Your task to perform on an android device: turn off location Image 0: 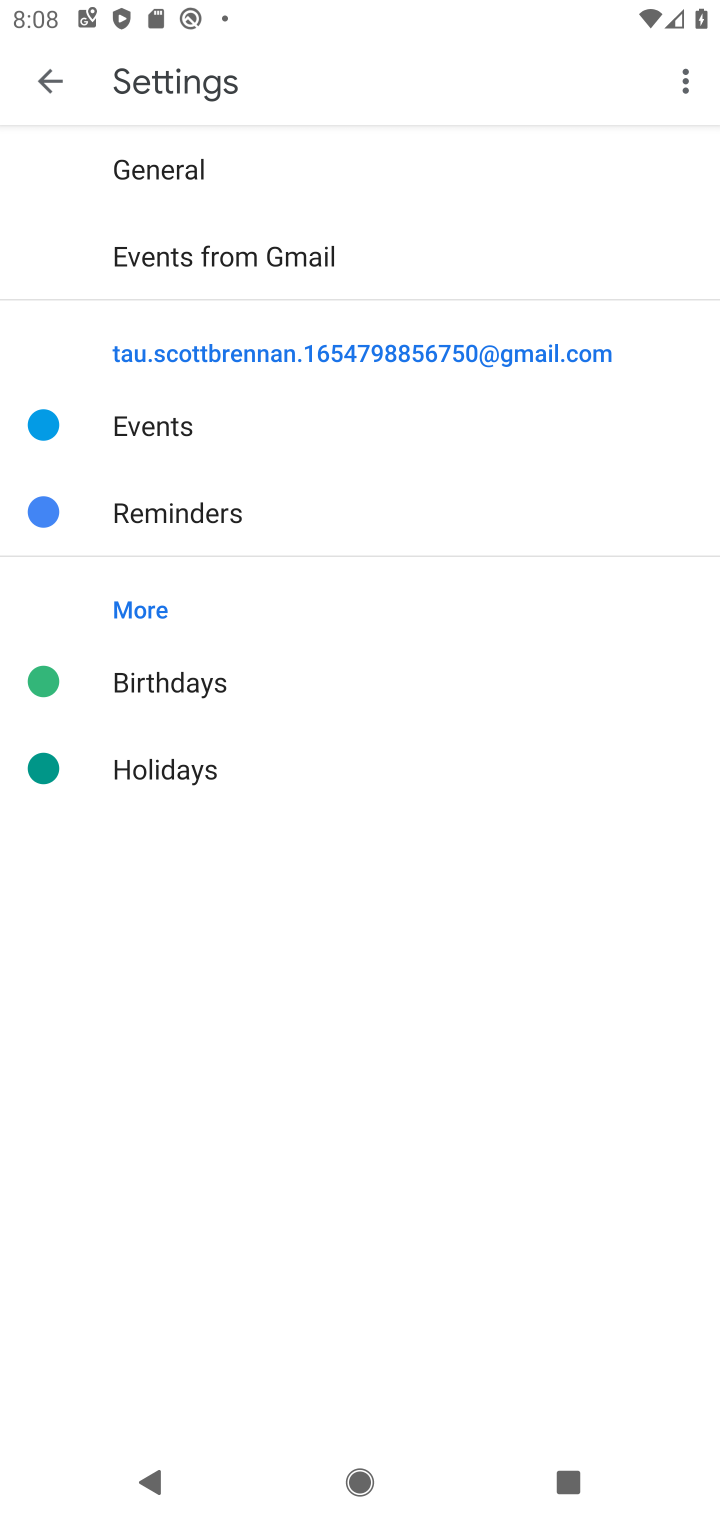
Step 0: press home button
Your task to perform on an android device: turn off location Image 1: 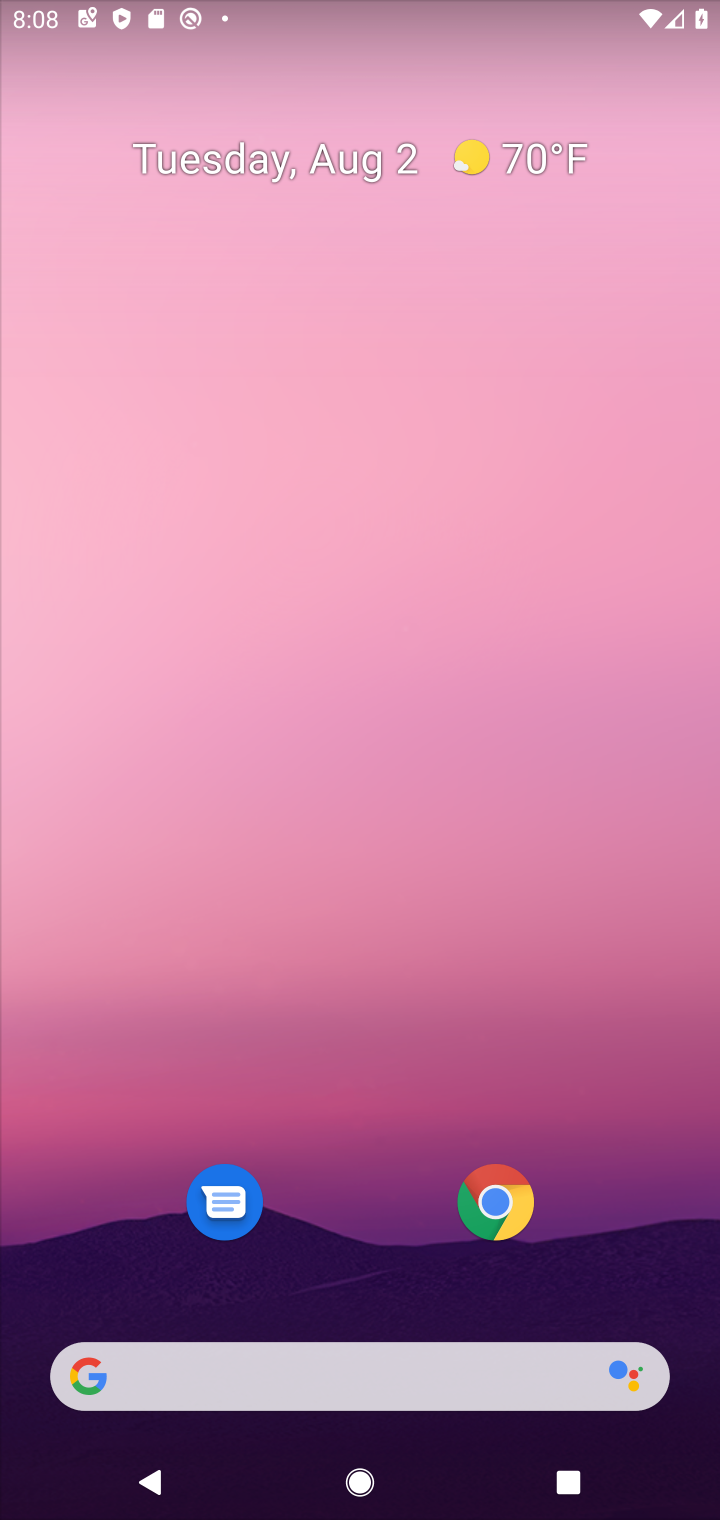
Step 1: drag from (376, 1064) to (358, 52)
Your task to perform on an android device: turn off location Image 2: 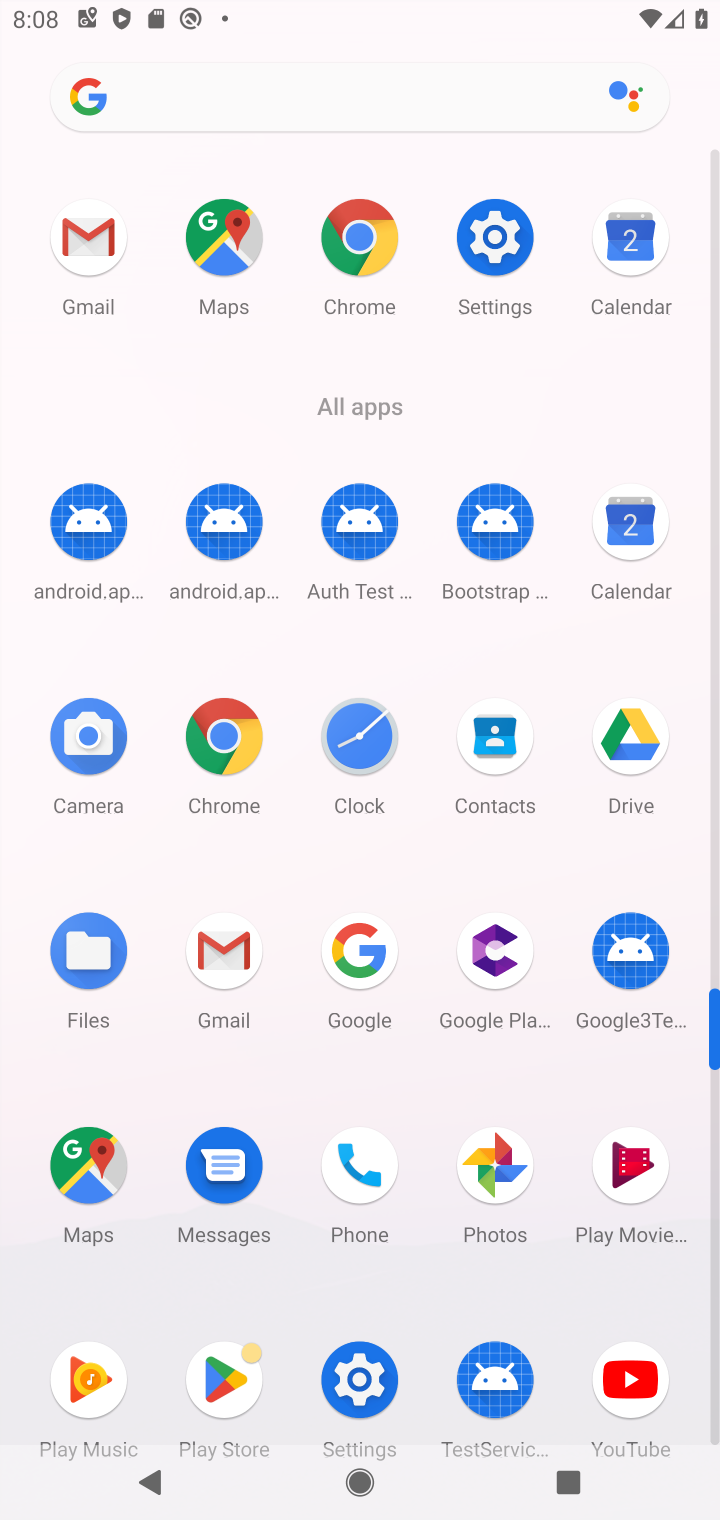
Step 2: click (488, 239)
Your task to perform on an android device: turn off location Image 3: 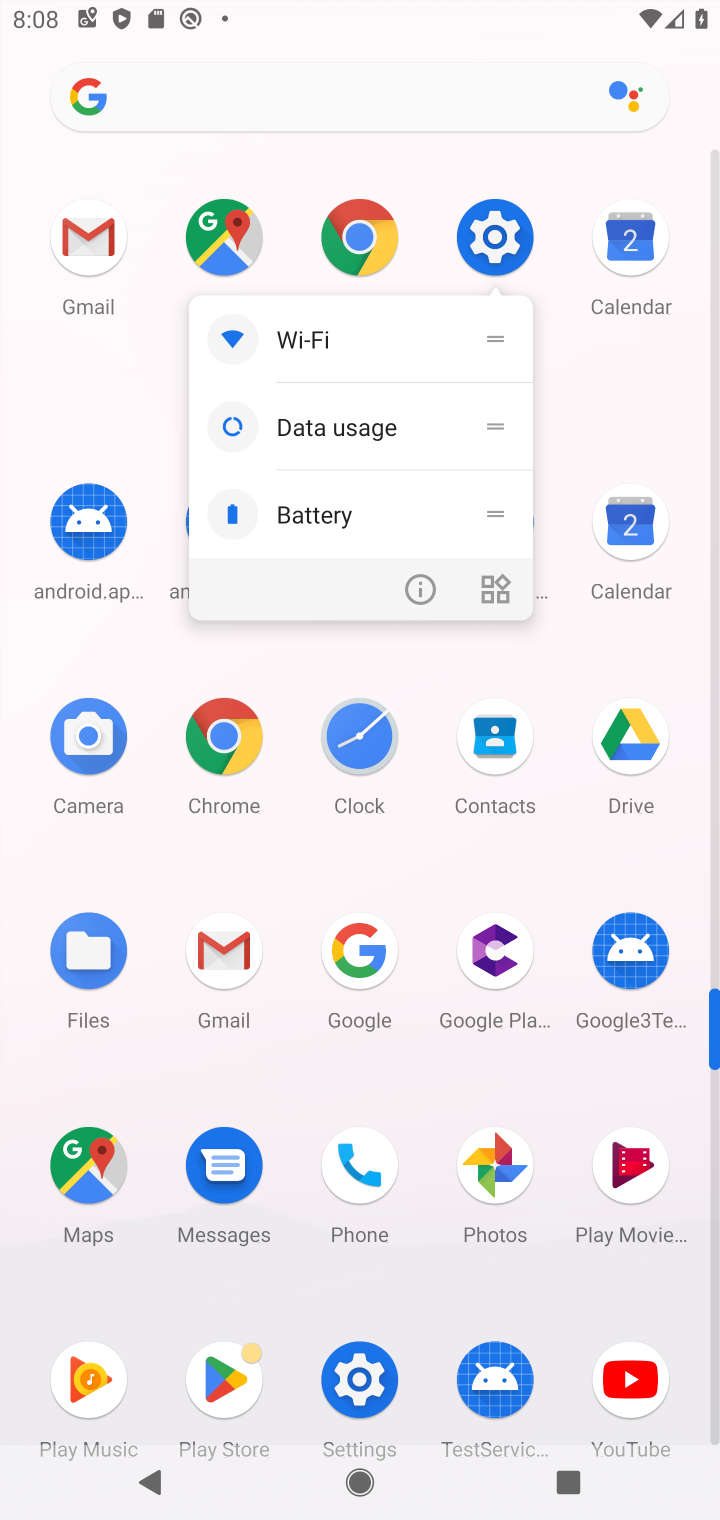
Step 3: click (488, 239)
Your task to perform on an android device: turn off location Image 4: 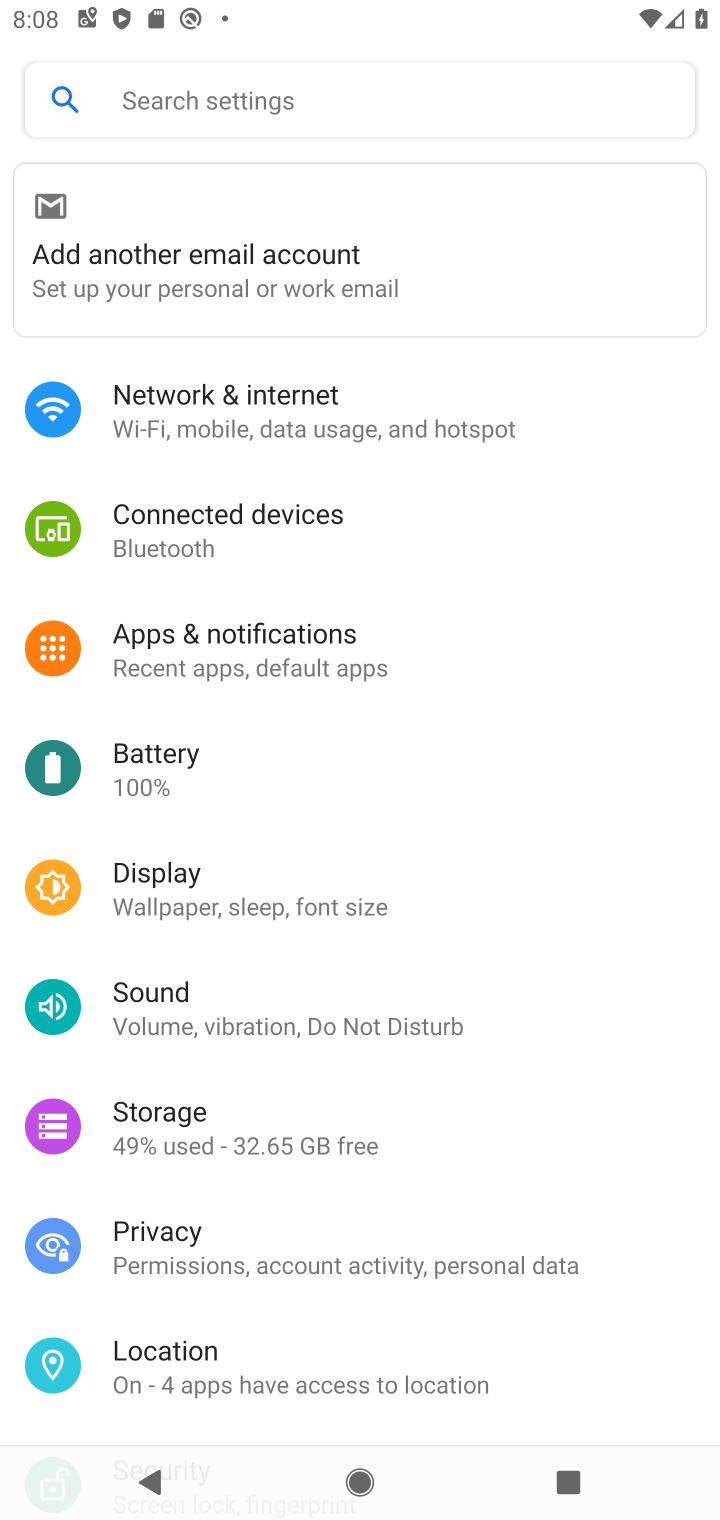
Step 4: click (202, 1369)
Your task to perform on an android device: turn off location Image 5: 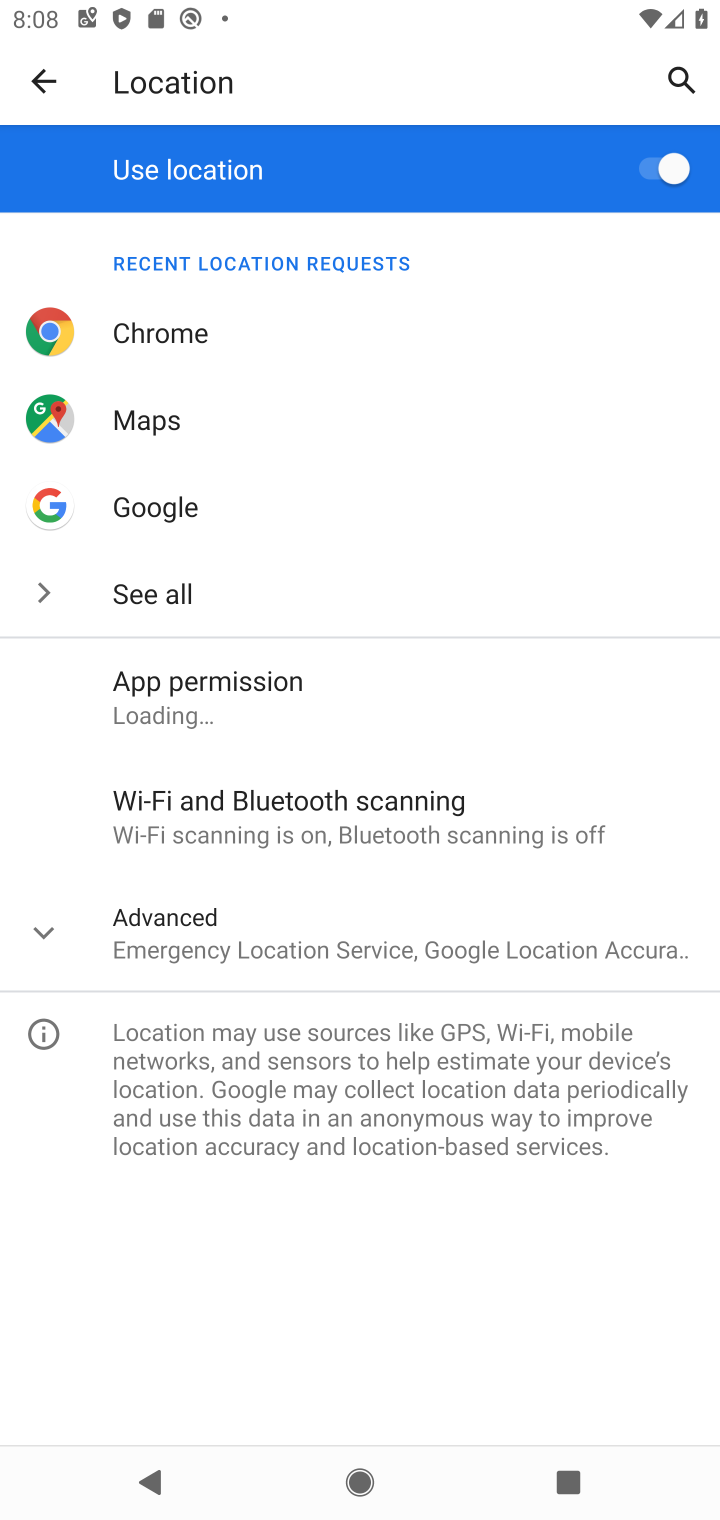
Step 5: click (661, 165)
Your task to perform on an android device: turn off location Image 6: 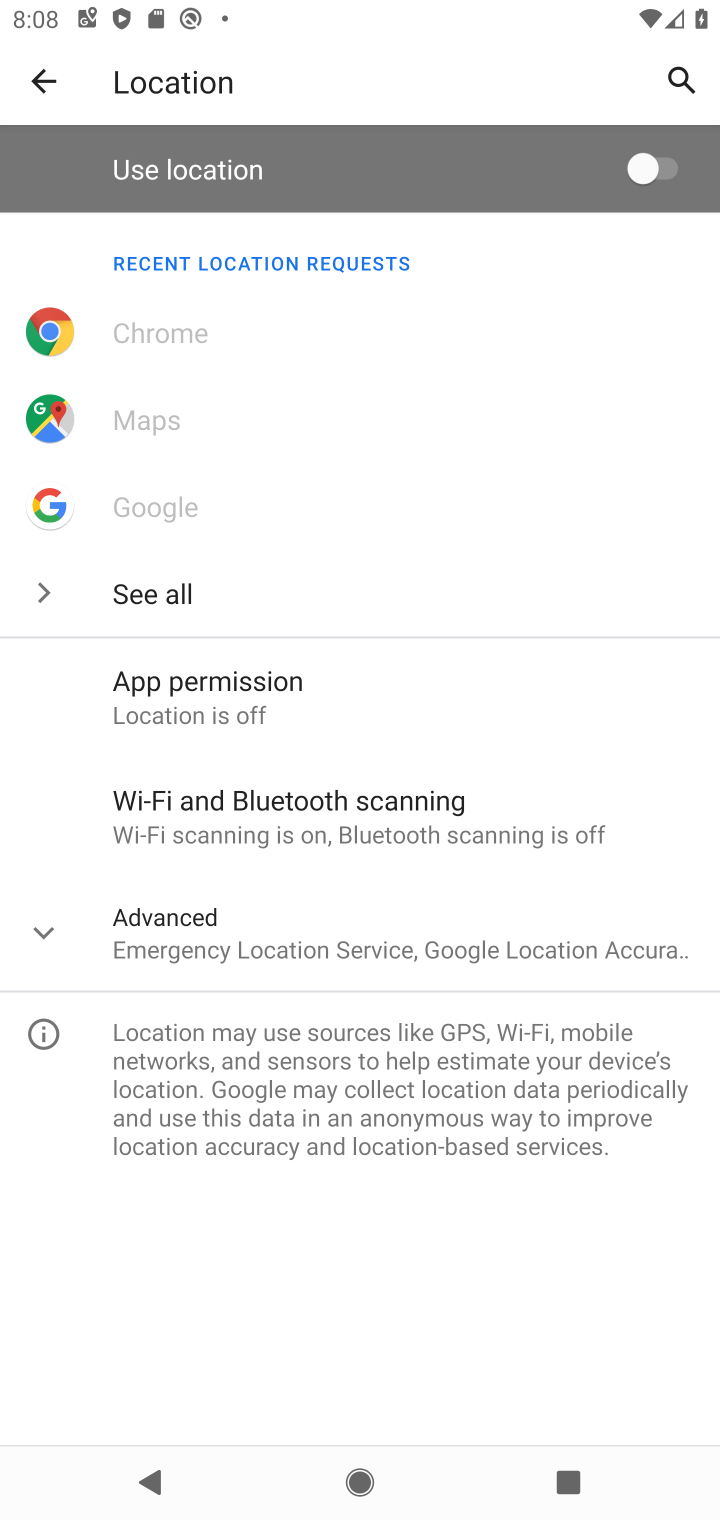
Step 6: task complete